Your task to perform on an android device: set default search engine in the chrome app Image 0: 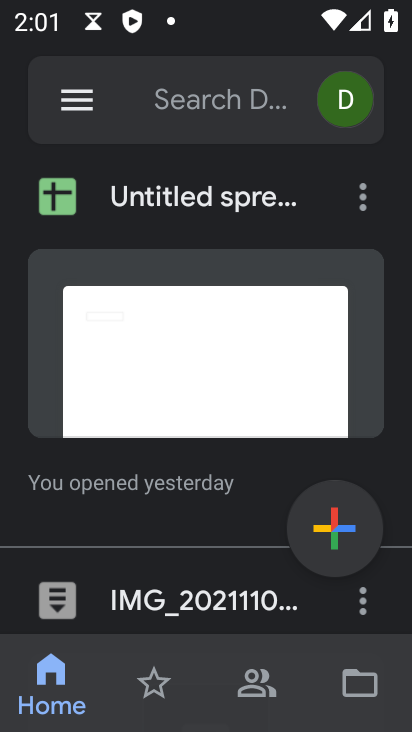
Step 0: press home button
Your task to perform on an android device: set default search engine in the chrome app Image 1: 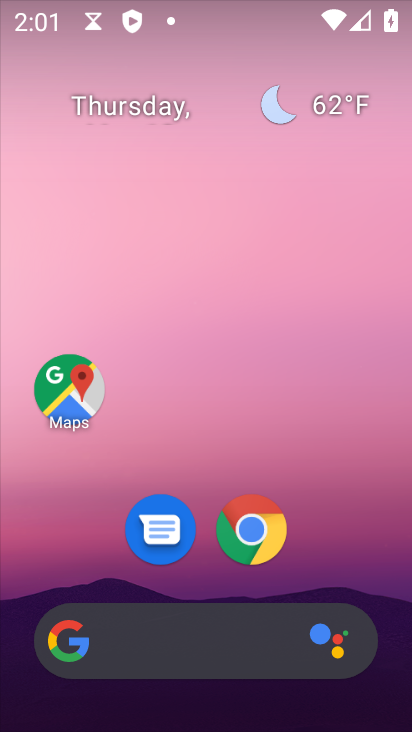
Step 1: click (254, 532)
Your task to perform on an android device: set default search engine in the chrome app Image 2: 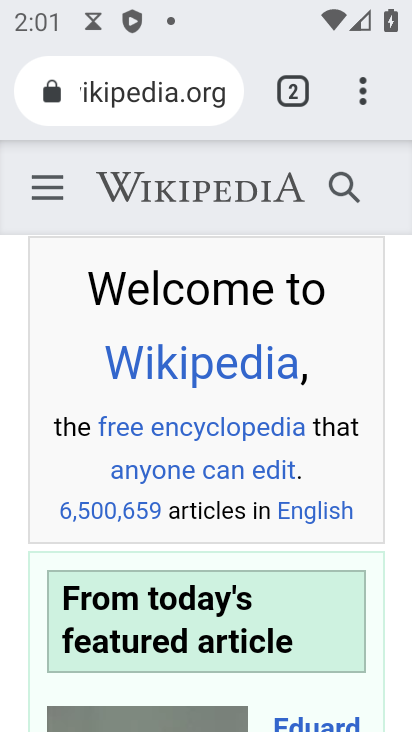
Step 2: click (362, 91)
Your task to perform on an android device: set default search engine in the chrome app Image 3: 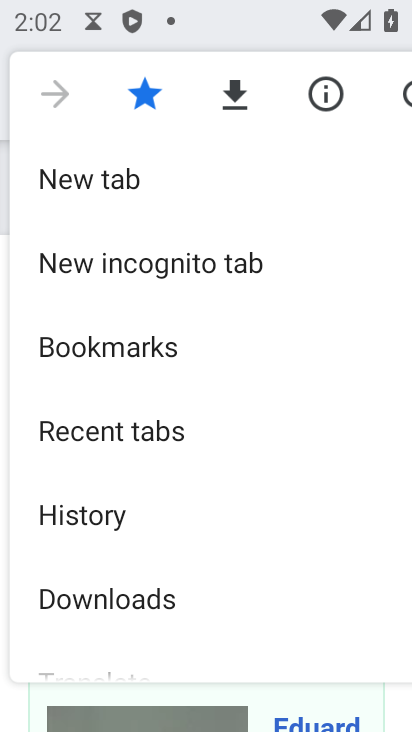
Step 3: drag from (136, 470) to (89, 348)
Your task to perform on an android device: set default search engine in the chrome app Image 4: 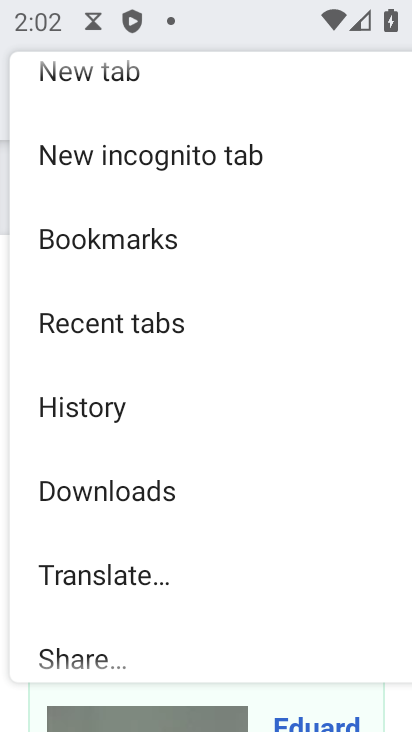
Step 4: drag from (111, 517) to (114, 427)
Your task to perform on an android device: set default search engine in the chrome app Image 5: 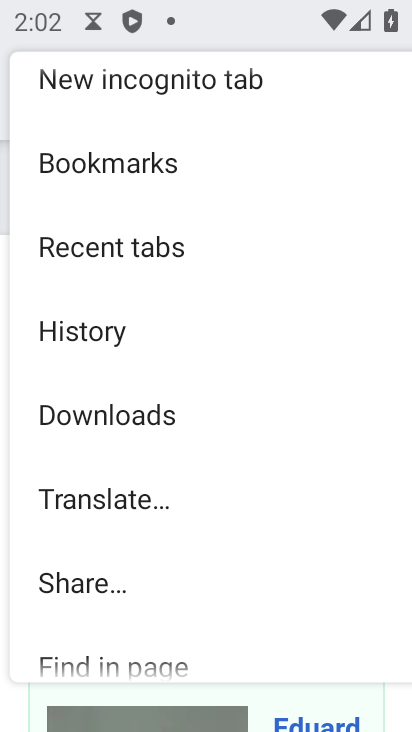
Step 5: drag from (128, 532) to (160, 407)
Your task to perform on an android device: set default search engine in the chrome app Image 6: 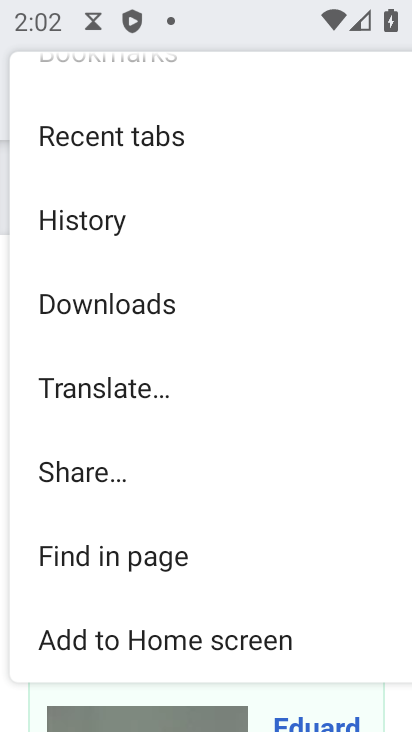
Step 6: drag from (112, 511) to (168, 425)
Your task to perform on an android device: set default search engine in the chrome app Image 7: 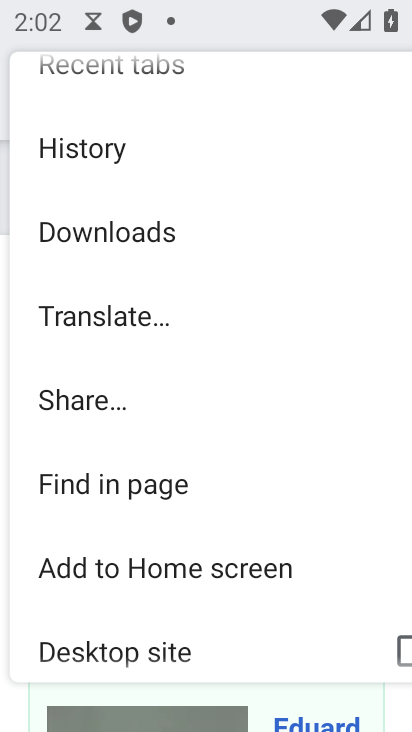
Step 7: drag from (97, 606) to (176, 485)
Your task to perform on an android device: set default search engine in the chrome app Image 8: 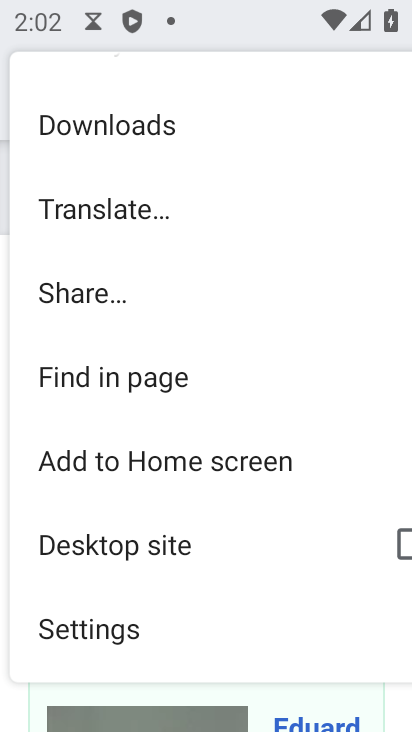
Step 8: drag from (106, 586) to (187, 454)
Your task to perform on an android device: set default search engine in the chrome app Image 9: 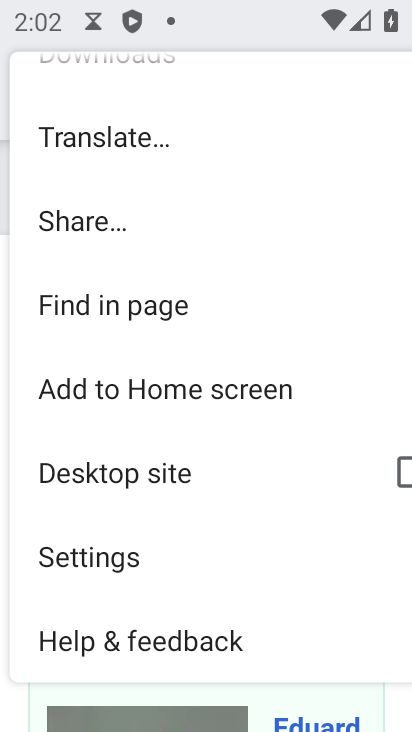
Step 9: click (81, 561)
Your task to perform on an android device: set default search engine in the chrome app Image 10: 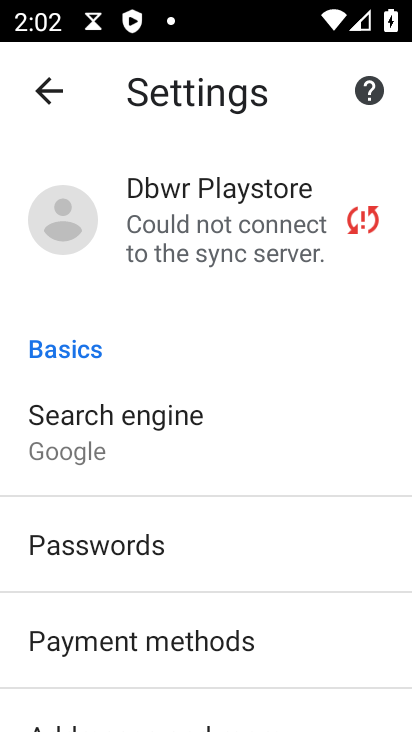
Step 10: drag from (114, 519) to (155, 424)
Your task to perform on an android device: set default search engine in the chrome app Image 11: 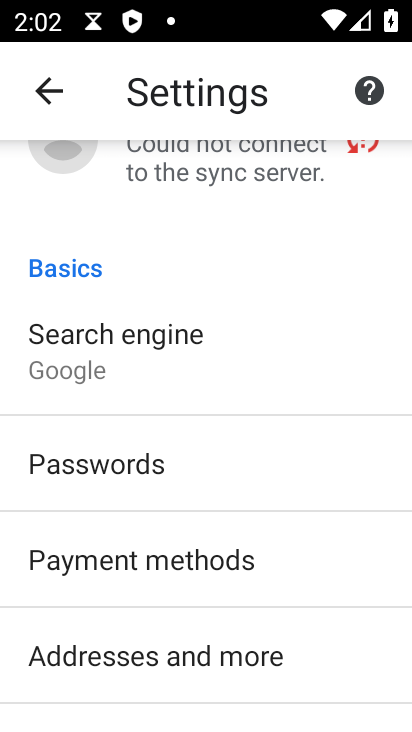
Step 11: drag from (132, 600) to (140, 536)
Your task to perform on an android device: set default search engine in the chrome app Image 12: 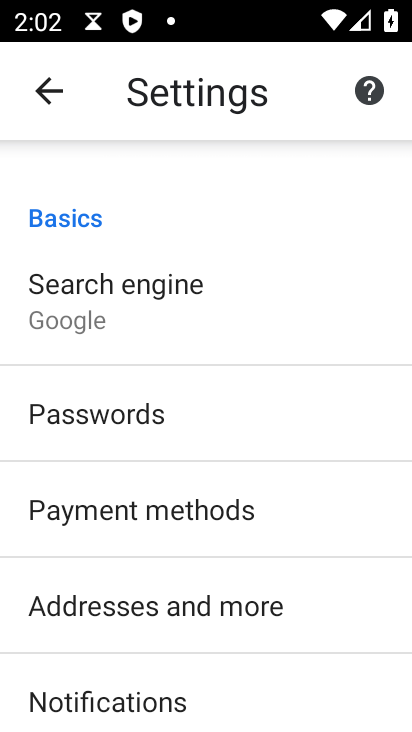
Step 12: click (136, 287)
Your task to perform on an android device: set default search engine in the chrome app Image 13: 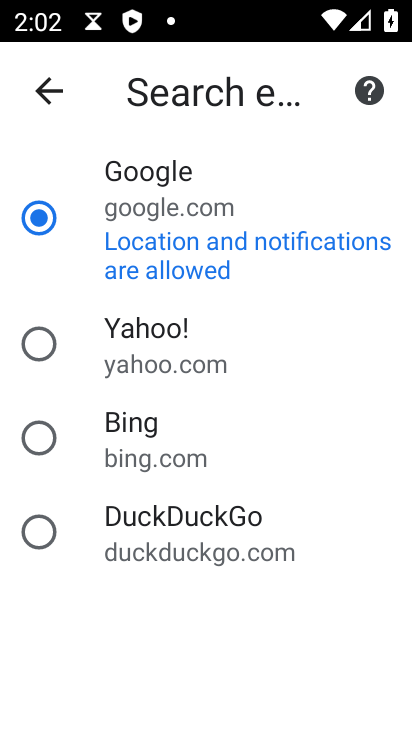
Step 13: click (37, 447)
Your task to perform on an android device: set default search engine in the chrome app Image 14: 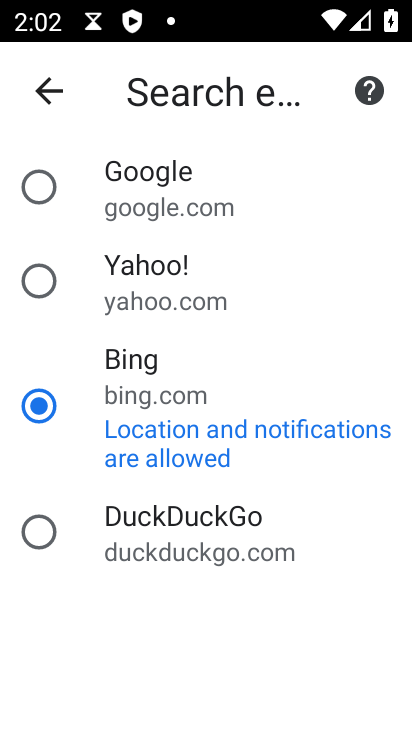
Step 14: task complete